Your task to perform on an android device: remove spam from my inbox in the gmail app Image 0: 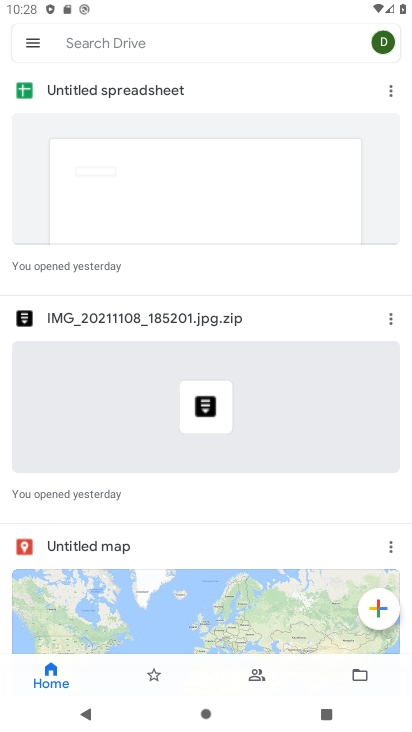
Step 0: press home button
Your task to perform on an android device: remove spam from my inbox in the gmail app Image 1: 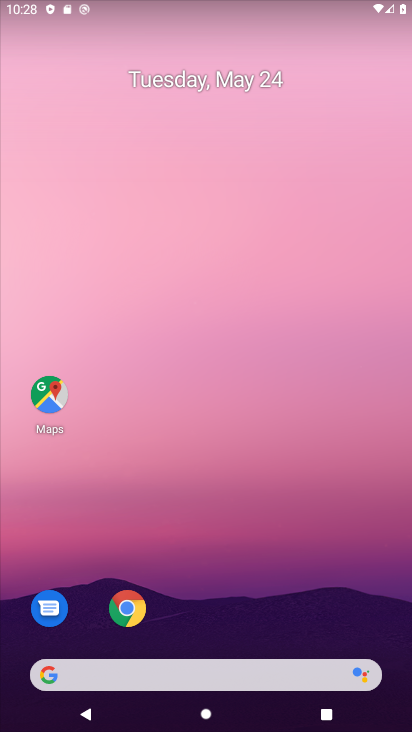
Step 1: drag from (389, 631) to (309, 85)
Your task to perform on an android device: remove spam from my inbox in the gmail app Image 2: 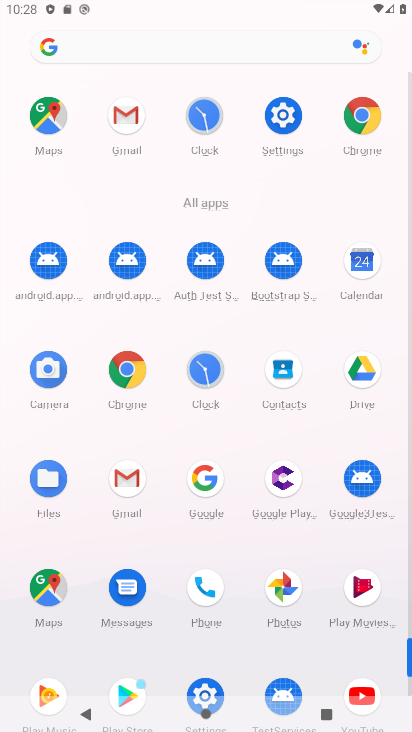
Step 2: click (409, 685)
Your task to perform on an android device: remove spam from my inbox in the gmail app Image 3: 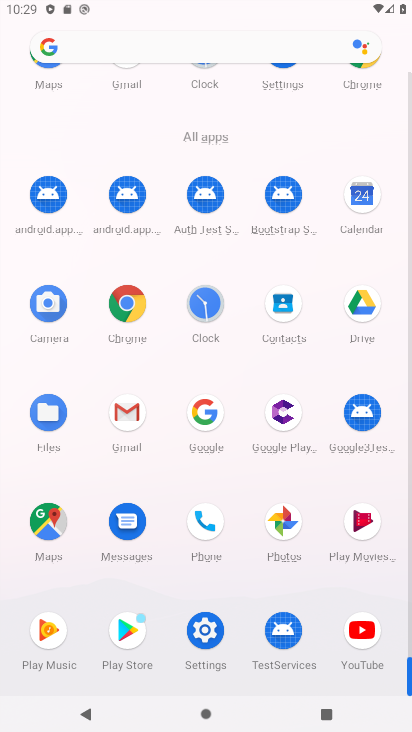
Step 3: click (124, 408)
Your task to perform on an android device: remove spam from my inbox in the gmail app Image 4: 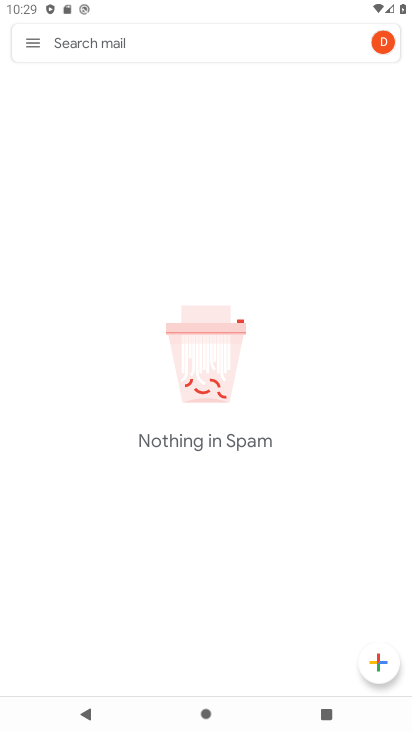
Step 4: click (30, 38)
Your task to perform on an android device: remove spam from my inbox in the gmail app Image 5: 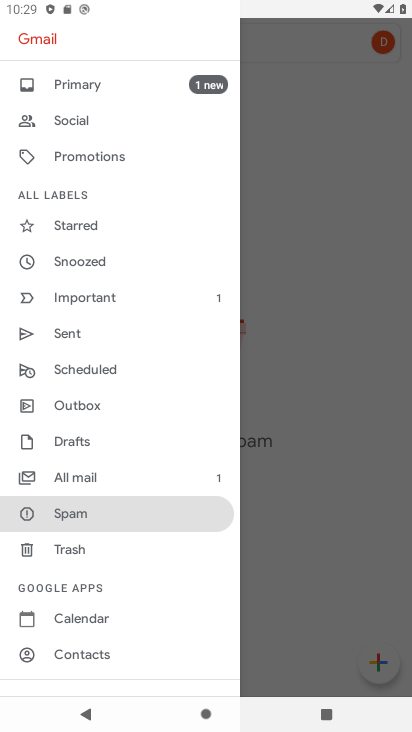
Step 5: click (97, 511)
Your task to perform on an android device: remove spam from my inbox in the gmail app Image 6: 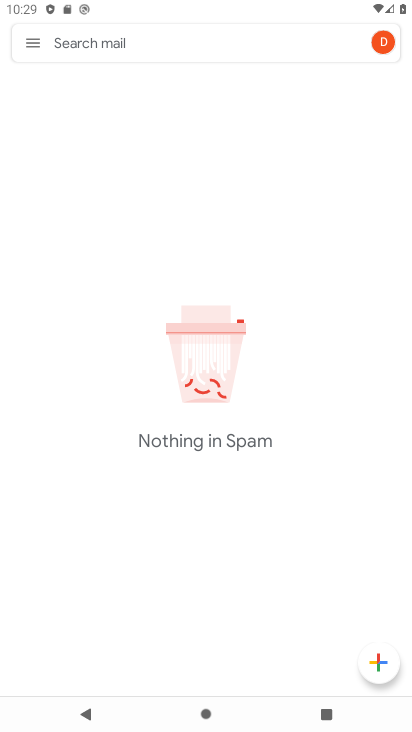
Step 6: task complete